Your task to perform on an android device: turn off wifi Image 0: 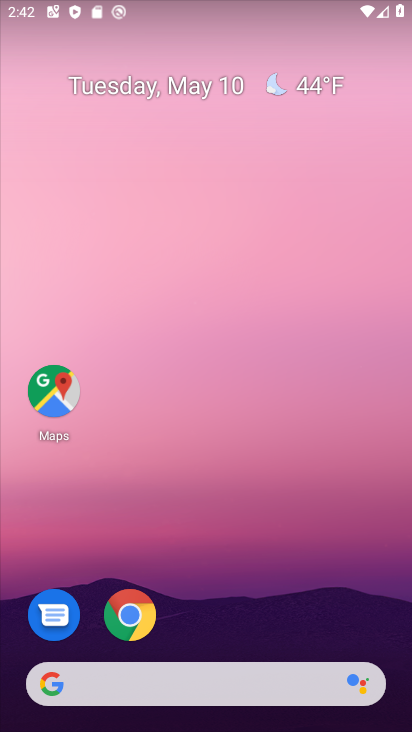
Step 0: drag from (181, 3) to (199, 714)
Your task to perform on an android device: turn off wifi Image 1: 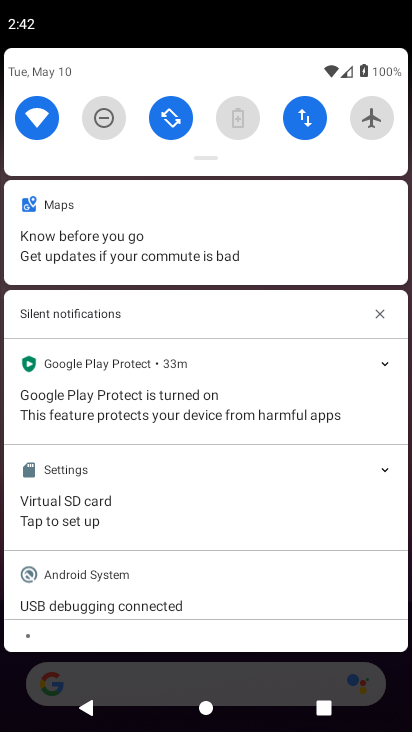
Step 1: click (48, 120)
Your task to perform on an android device: turn off wifi Image 2: 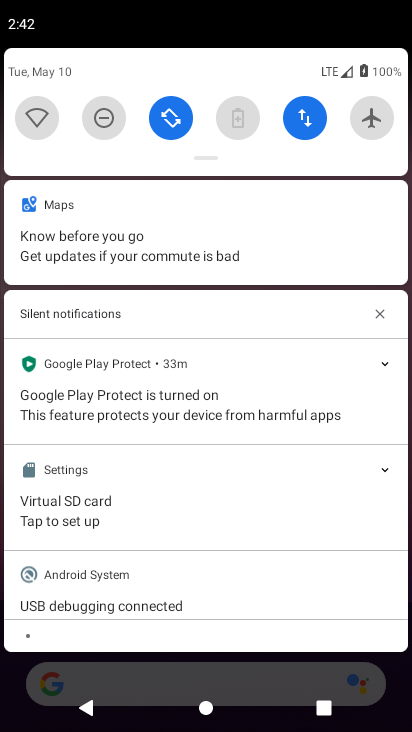
Step 2: task complete